Your task to perform on an android device: allow notifications from all sites in the chrome app Image 0: 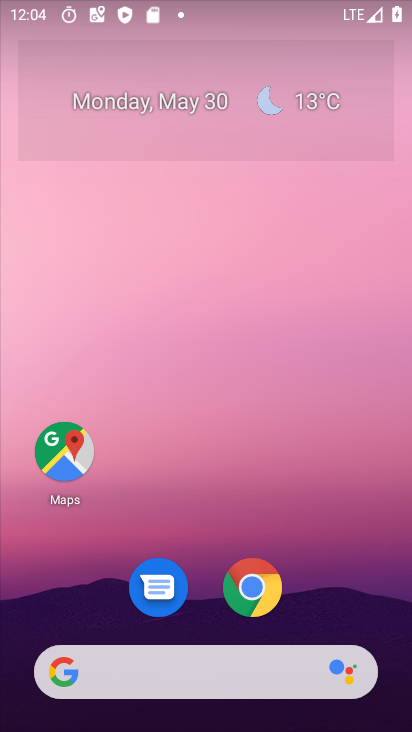
Step 0: click (251, 583)
Your task to perform on an android device: allow notifications from all sites in the chrome app Image 1: 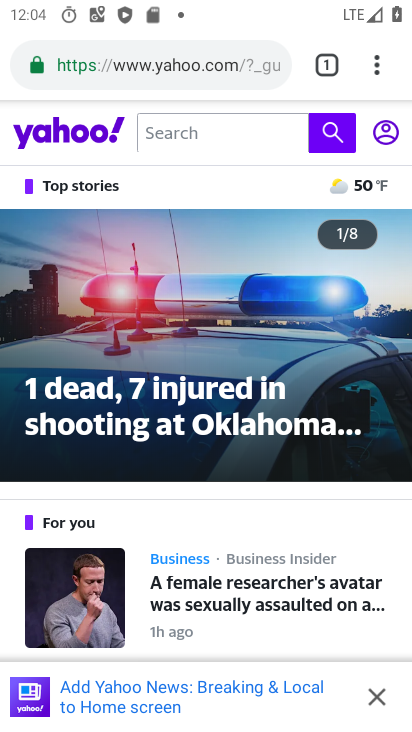
Step 1: drag from (369, 63) to (273, 631)
Your task to perform on an android device: allow notifications from all sites in the chrome app Image 2: 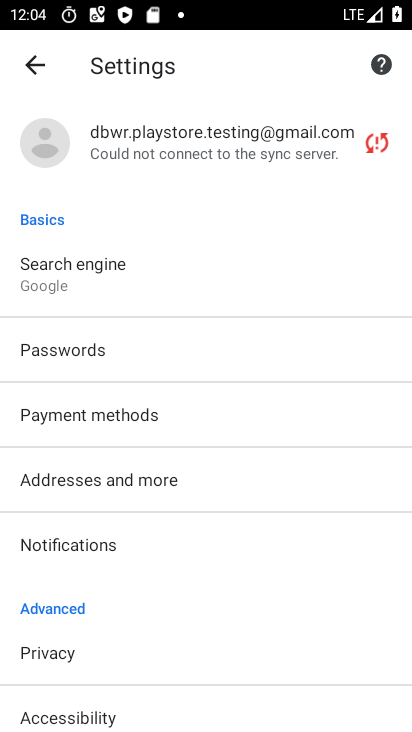
Step 2: drag from (122, 603) to (170, 244)
Your task to perform on an android device: allow notifications from all sites in the chrome app Image 3: 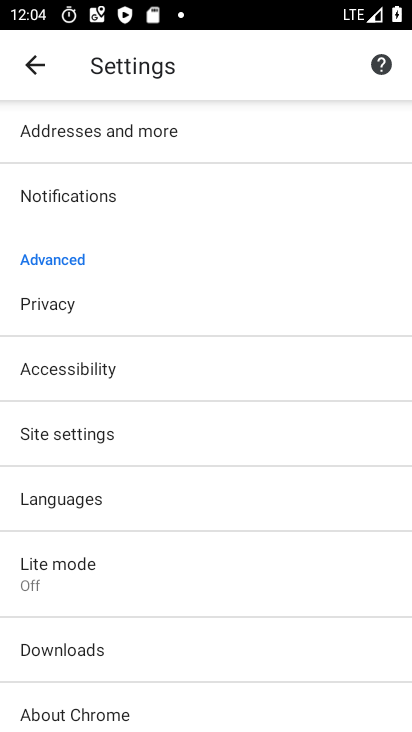
Step 3: click (85, 203)
Your task to perform on an android device: allow notifications from all sites in the chrome app Image 4: 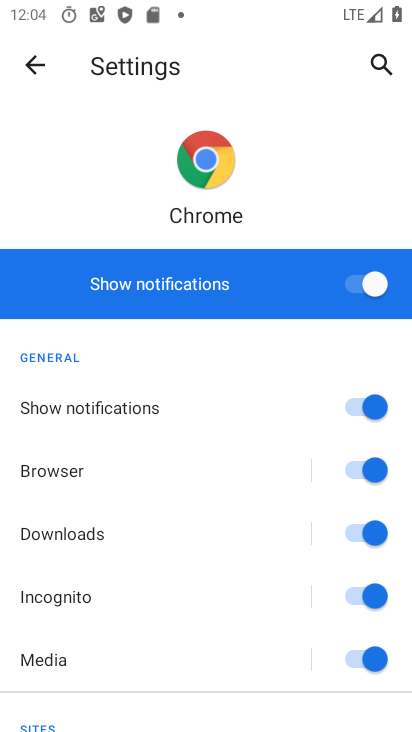
Step 4: task complete